Your task to perform on an android device: Go to Reddit.com Image 0: 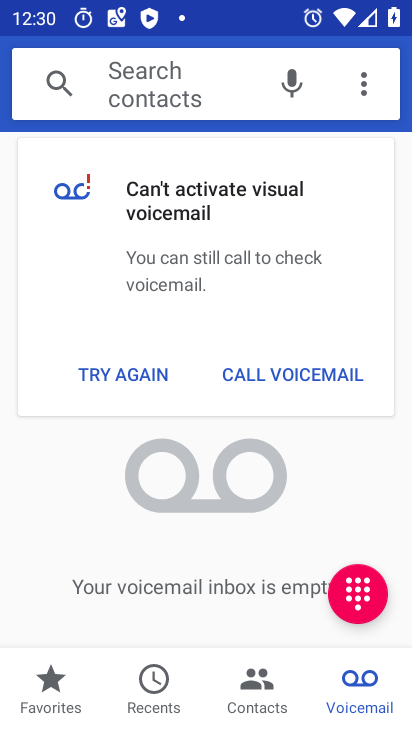
Step 0: press home button
Your task to perform on an android device: Go to Reddit.com Image 1: 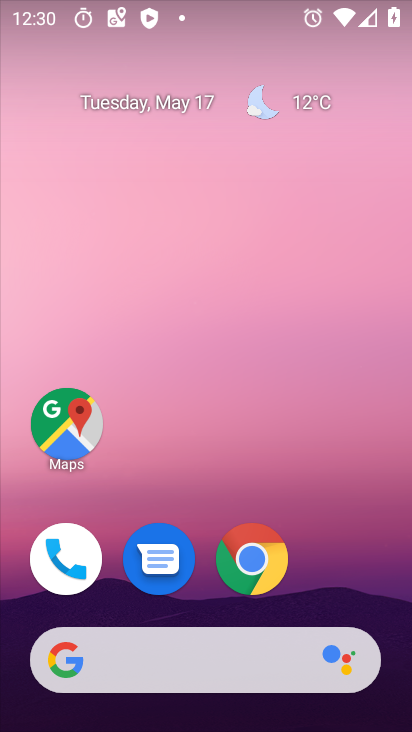
Step 1: click (258, 570)
Your task to perform on an android device: Go to Reddit.com Image 2: 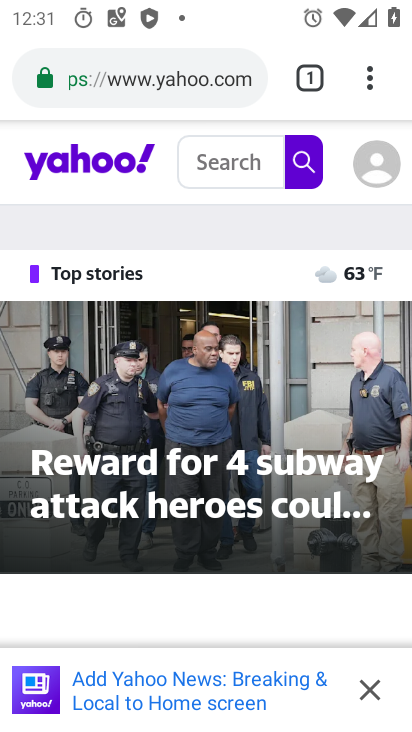
Step 2: click (161, 69)
Your task to perform on an android device: Go to Reddit.com Image 3: 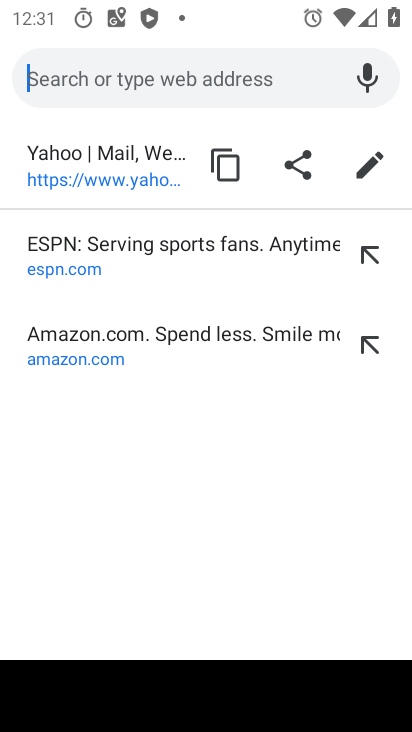
Step 3: type "reddit.com"
Your task to perform on an android device: Go to Reddit.com Image 4: 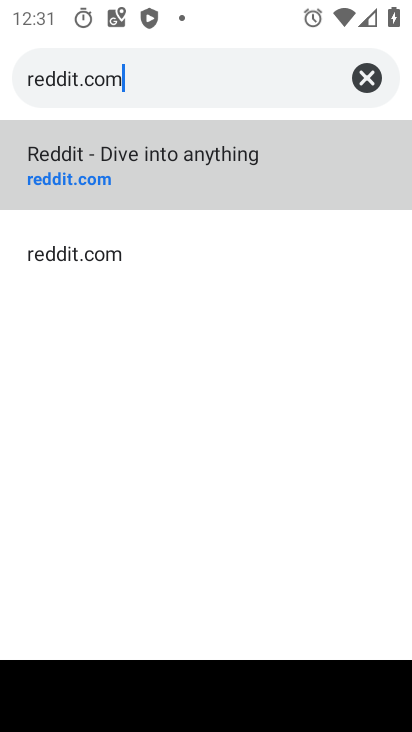
Step 4: click (80, 184)
Your task to perform on an android device: Go to Reddit.com Image 5: 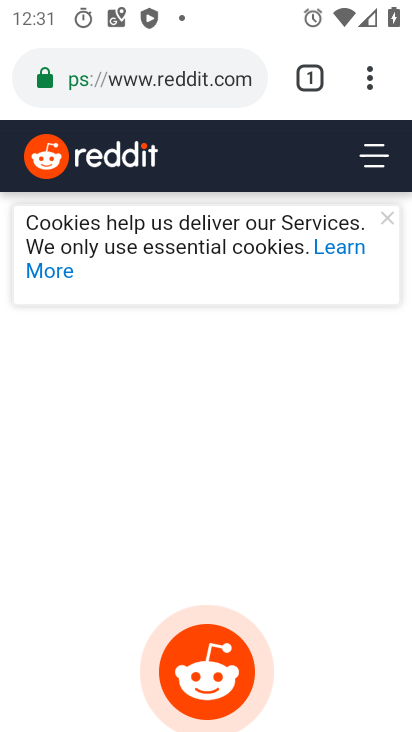
Step 5: task complete